Your task to perform on an android device: remove spam from my inbox in the gmail app Image 0: 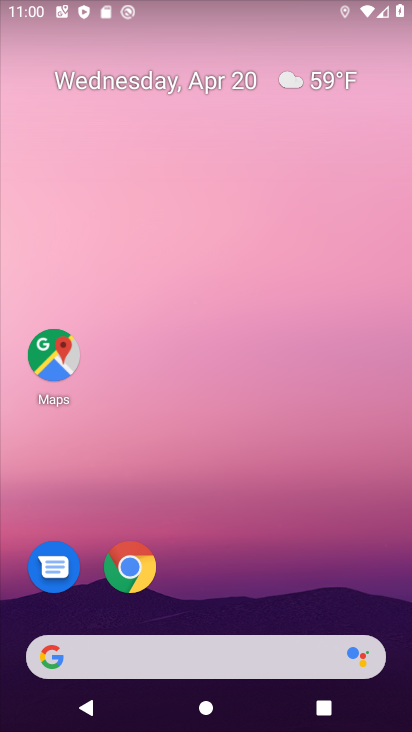
Step 0: drag from (273, 586) to (286, 2)
Your task to perform on an android device: remove spam from my inbox in the gmail app Image 1: 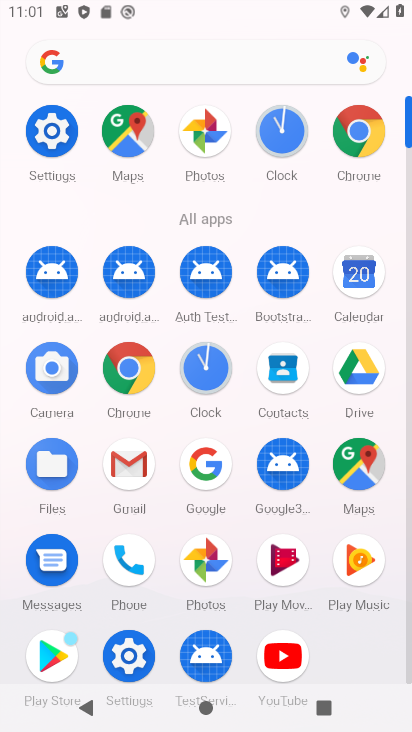
Step 1: click (138, 463)
Your task to perform on an android device: remove spam from my inbox in the gmail app Image 2: 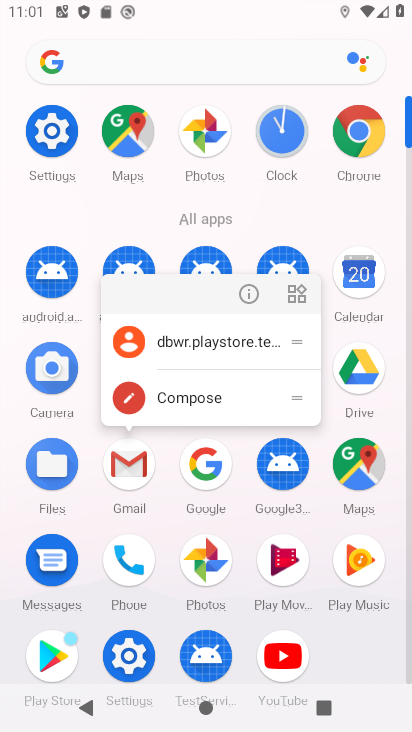
Step 2: click (138, 463)
Your task to perform on an android device: remove spam from my inbox in the gmail app Image 3: 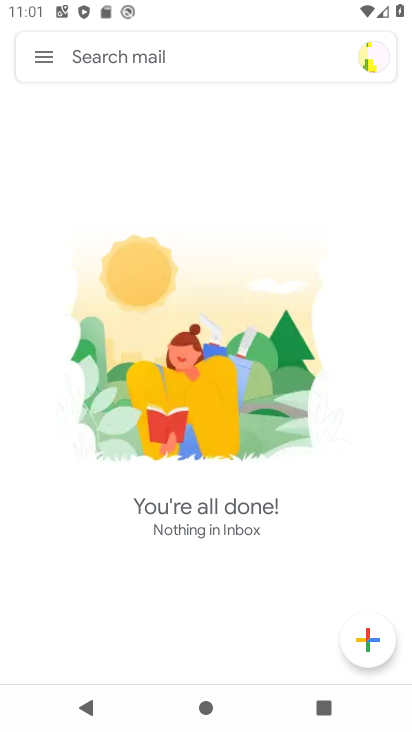
Step 3: click (50, 61)
Your task to perform on an android device: remove spam from my inbox in the gmail app Image 4: 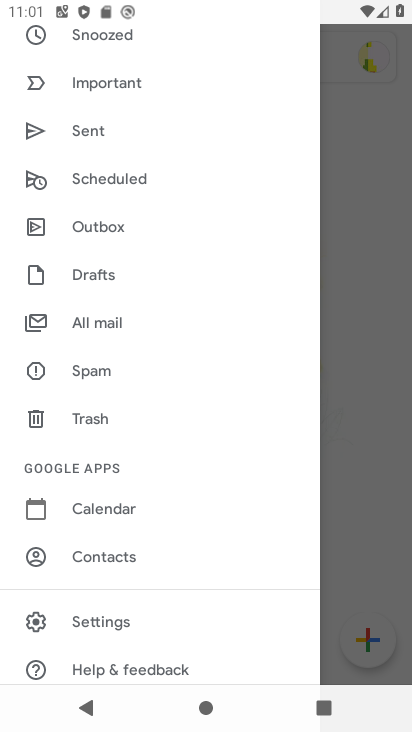
Step 4: click (114, 366)
Your task to perform on an android device: remove spam from my inbox in the gmail app Image 5: 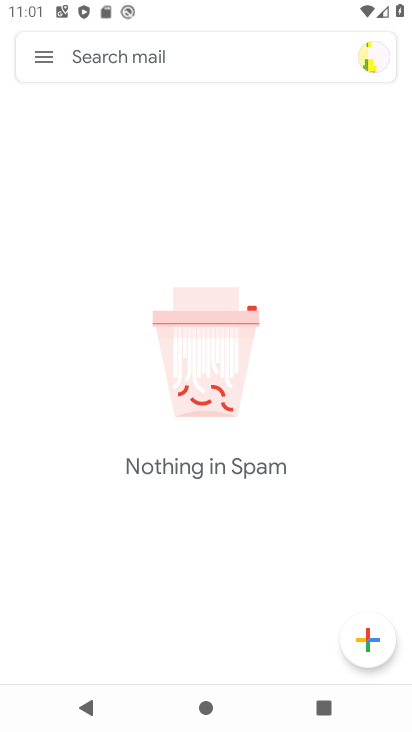
Step 5: task complete